Your task to perform on an android device: turn on translation in the chrome app Image 0: 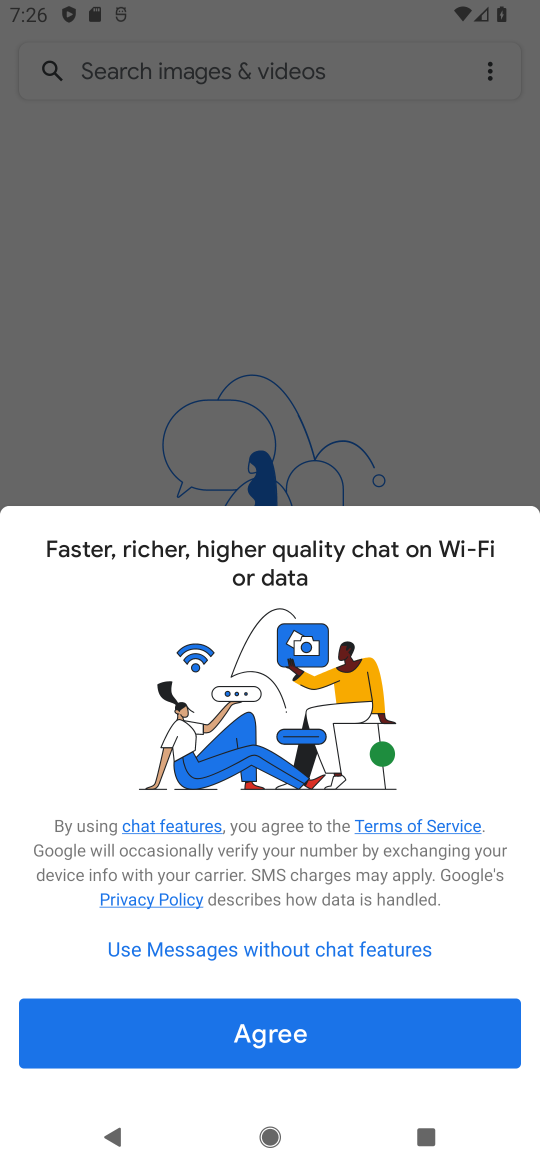
Step 0: press home button
Your task to perform on an android device: turn on translation in the chrome app Image 1: 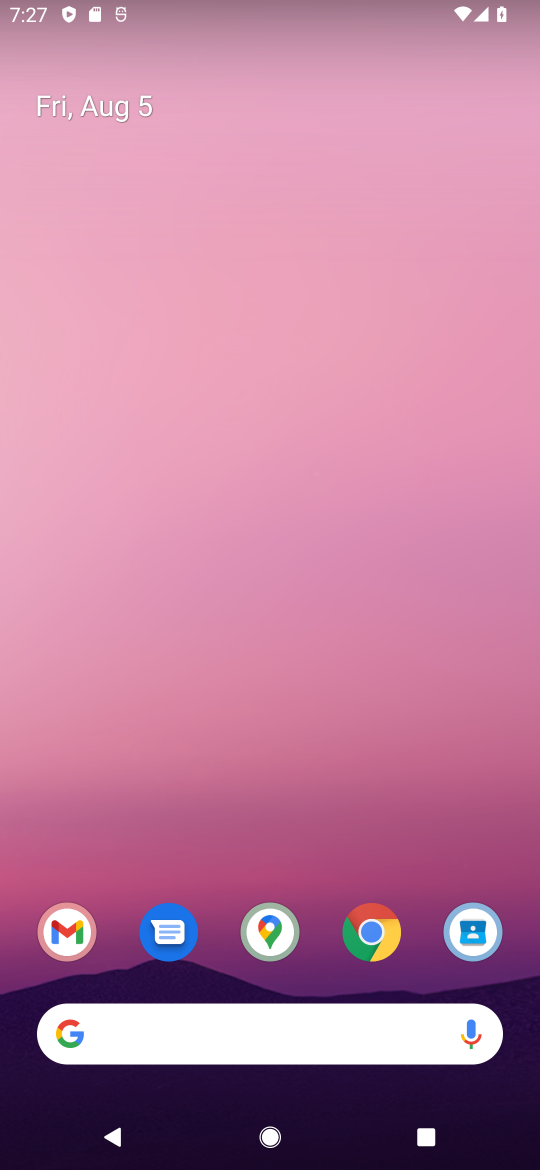
Step 1: drag from (392, 885) to (353, 157)
Your task to perform on an android device: turn on translation in the chrome app Image 2: 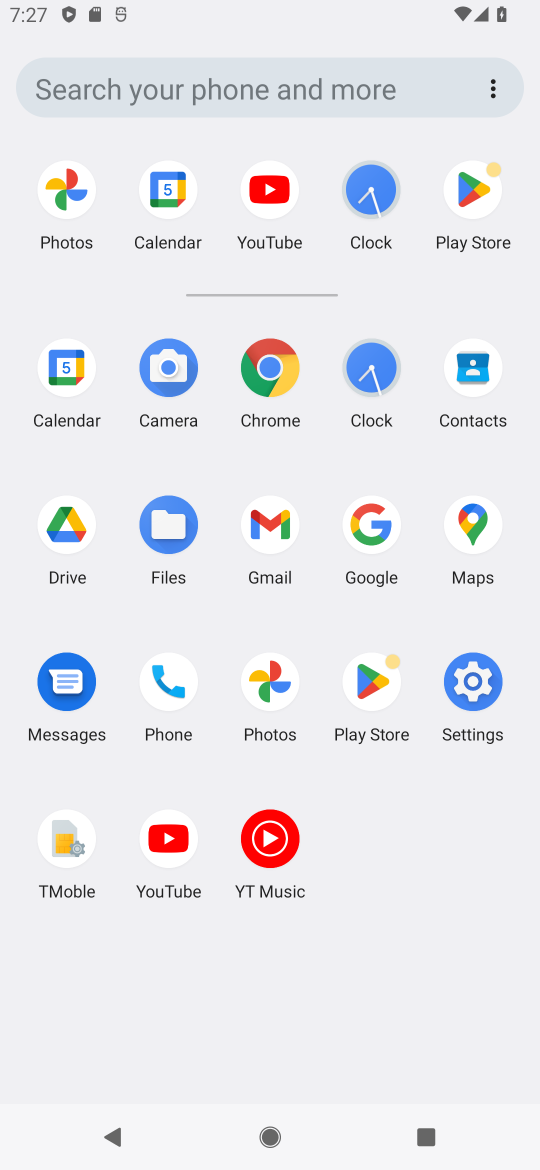
Step 2: click (265, 368)
Your task to perform on an android device: turn on translation in the chrome app Image 3: 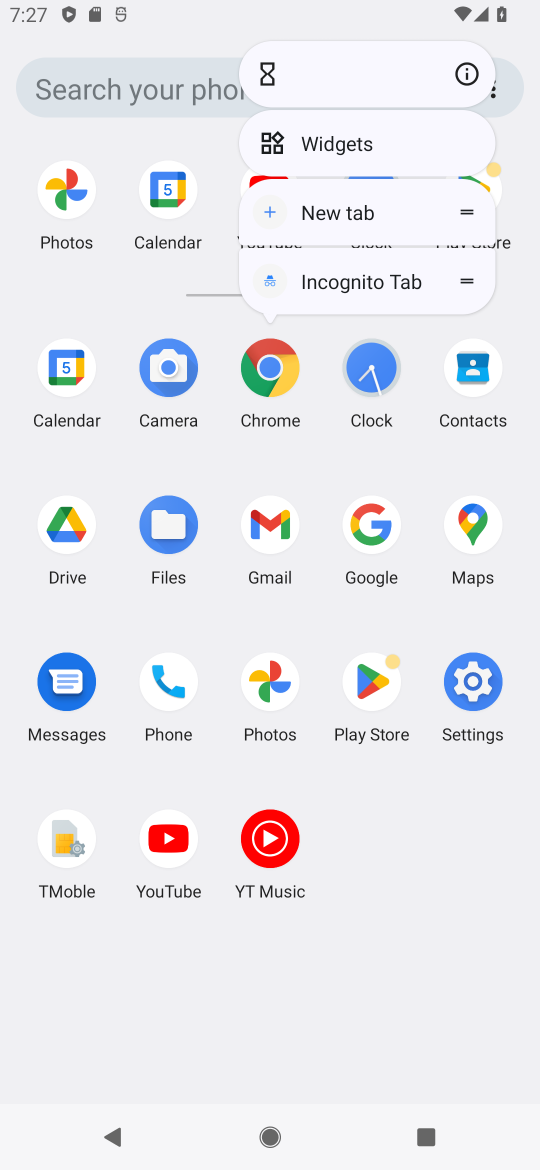
Step 3: click (265, 368)
Your task to perform on an android device: turn on translation in the chrome app Image 4: 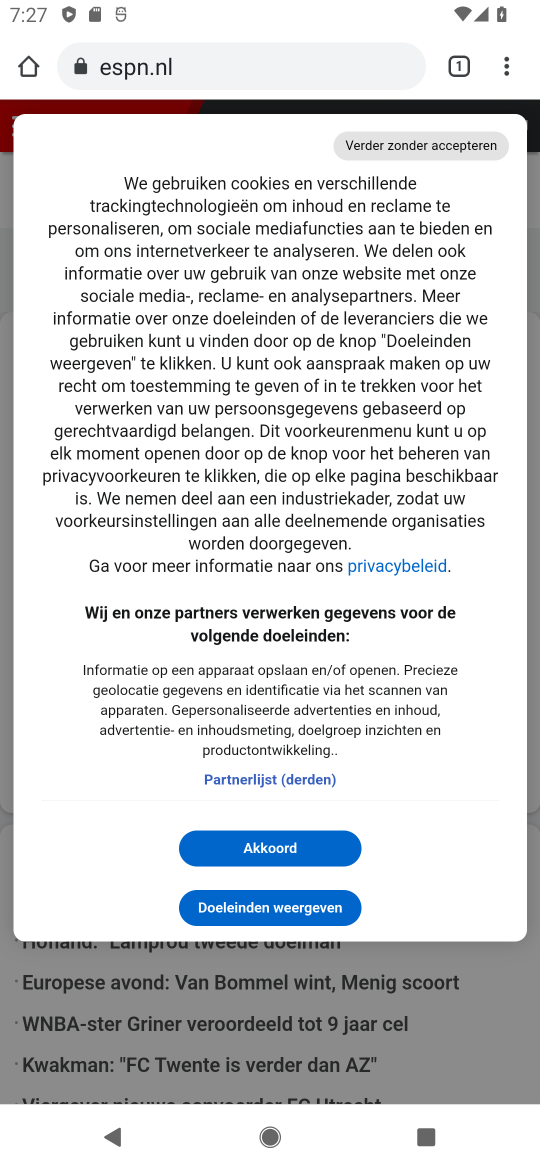
Step 4: drag from (511, 60) to (323, 877)
Your task to perform on an android device: turn on translation in the chrome app Image 5: 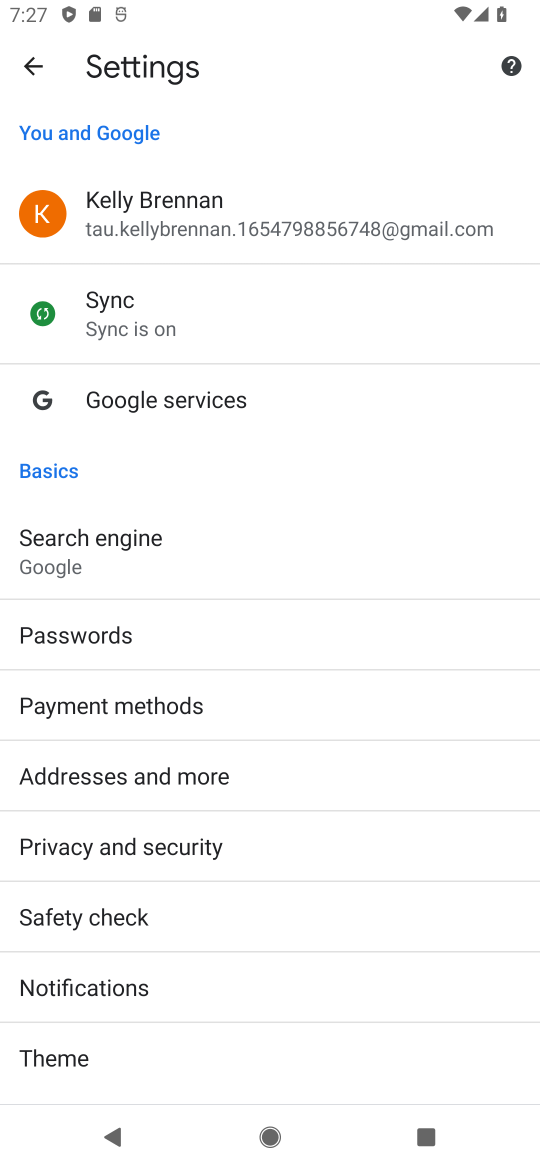
Step 5: drag from (293, 951) to (366, 507)
Your task to perform on an android device: turn on translation in the chrome app Image 6: 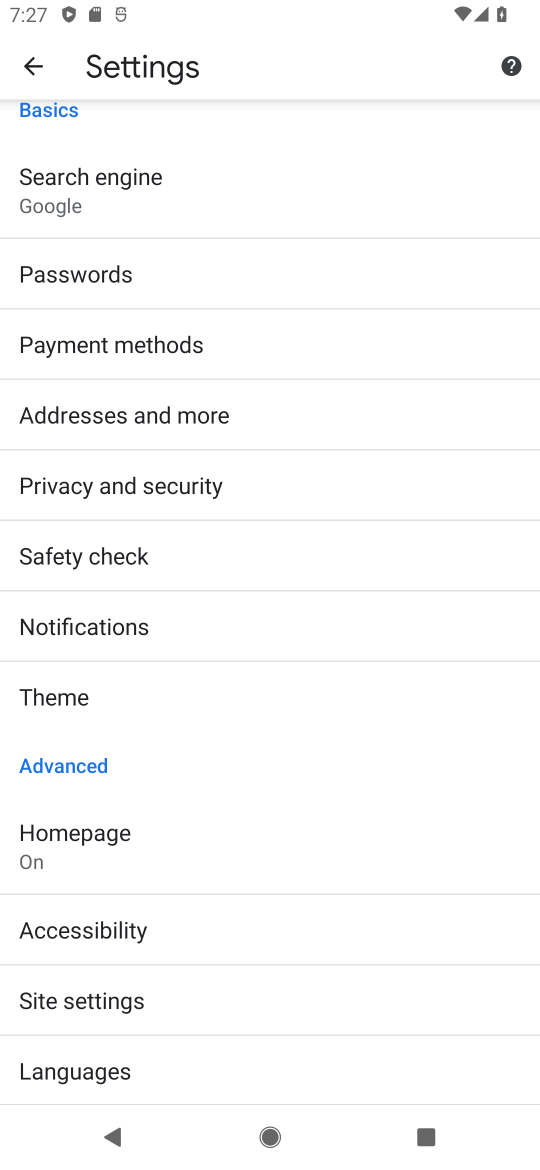
Step 6: click (78, 1078)
Your task to perform on an android device: turn on translation in the chrome app Image 7: 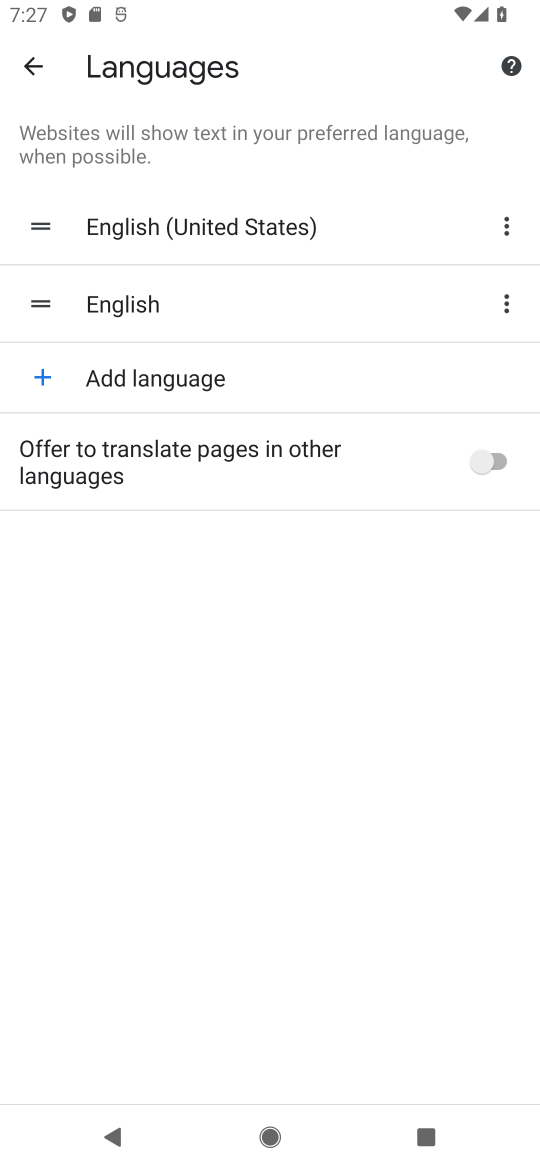
Step 7: click (494, 449)
Your task to perform on an android device: turn on translation in the chrome app Image 8: 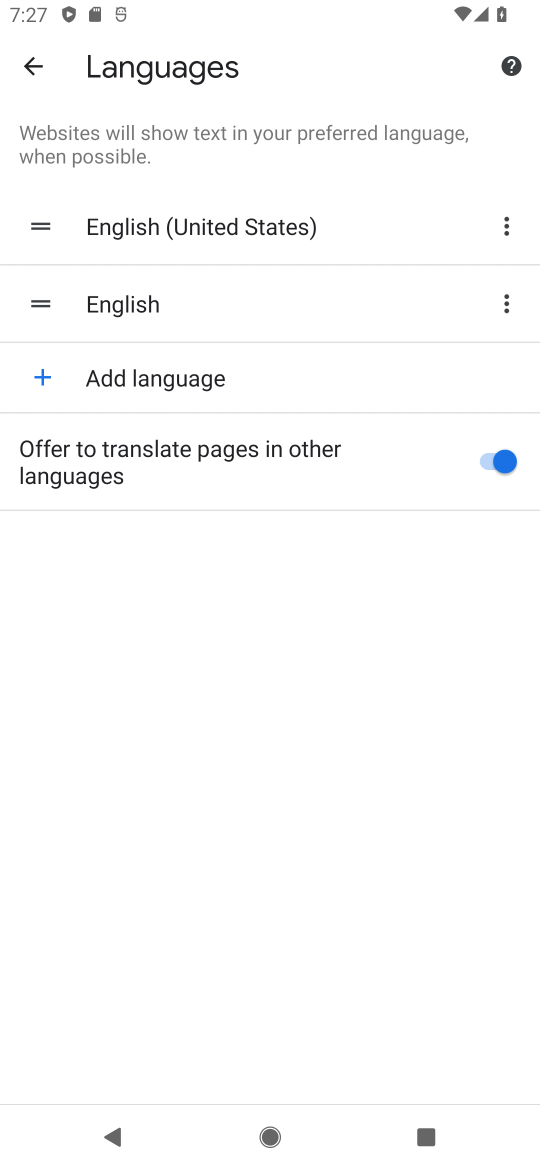
Step 8: task complete